Your task to perform on an android device: add a label to a message in the gmail app Image 0: 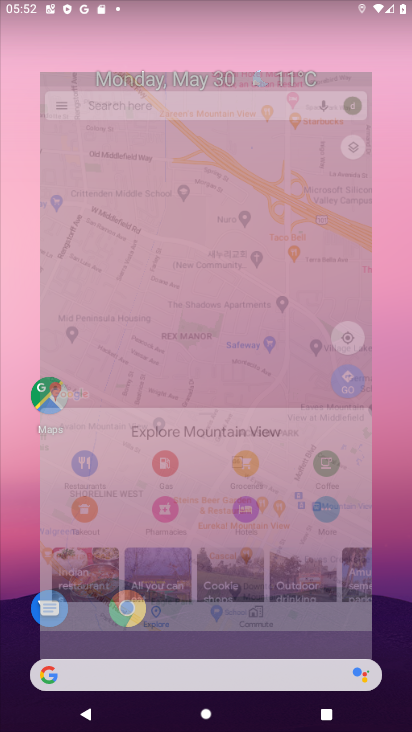
Step 0: drag from (174, 610) to (183, 202)
Your task to perform on an android device: add a label to a message in the gmail app Image 1: 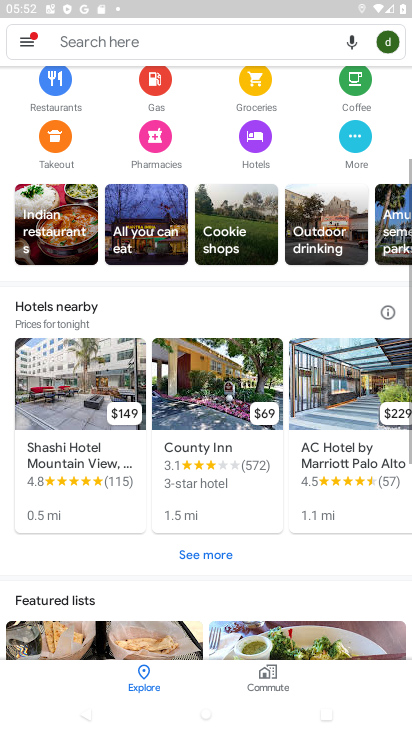
Step 1: press home button
Your task to perform on an android device: add a label to a message in the gmail app Image 2: 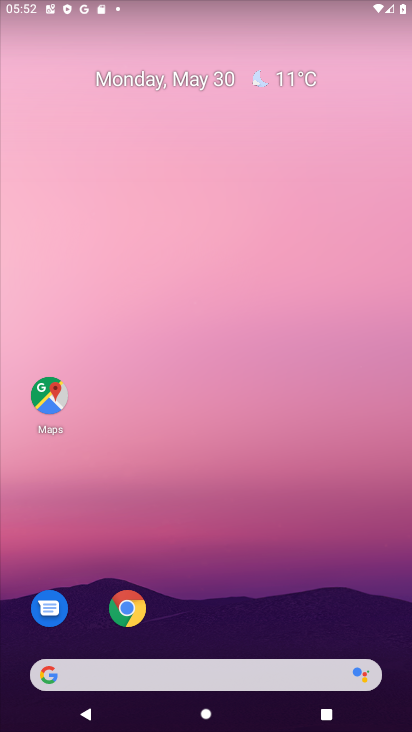
Step 2: drag from (157, 667) to (157, 267)
Your task to perform on an android device: add a label to a message in the gmail app Image 3: 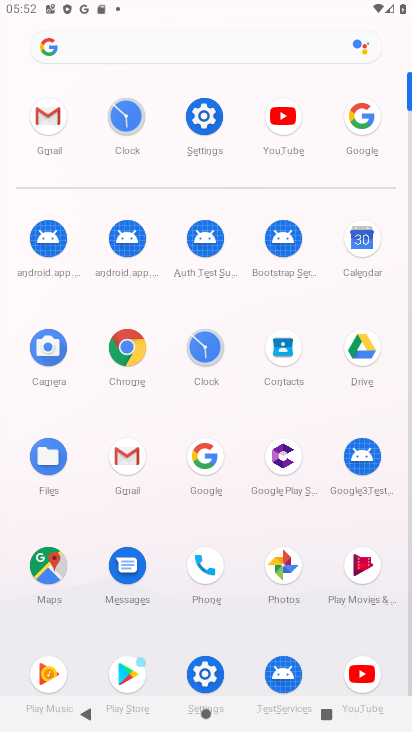
Step 3: click (46, 122)
Your task to perform on an android device: add a label to a message in the gmail app Image 4: 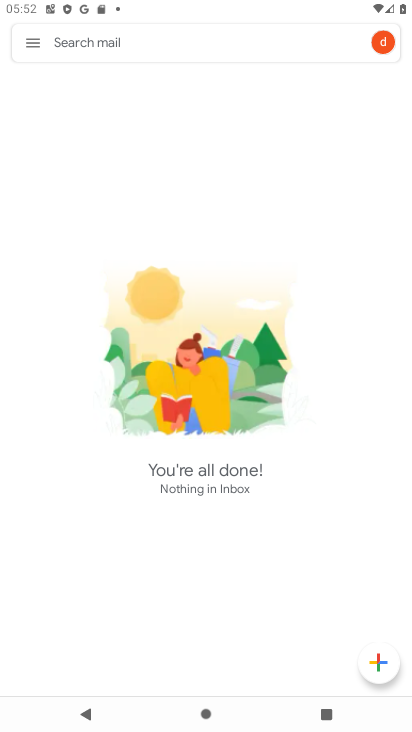
Step 4: task complete